Your task to perform on an android device: uninstall "Booking.com: Hotels and more" Image 0: 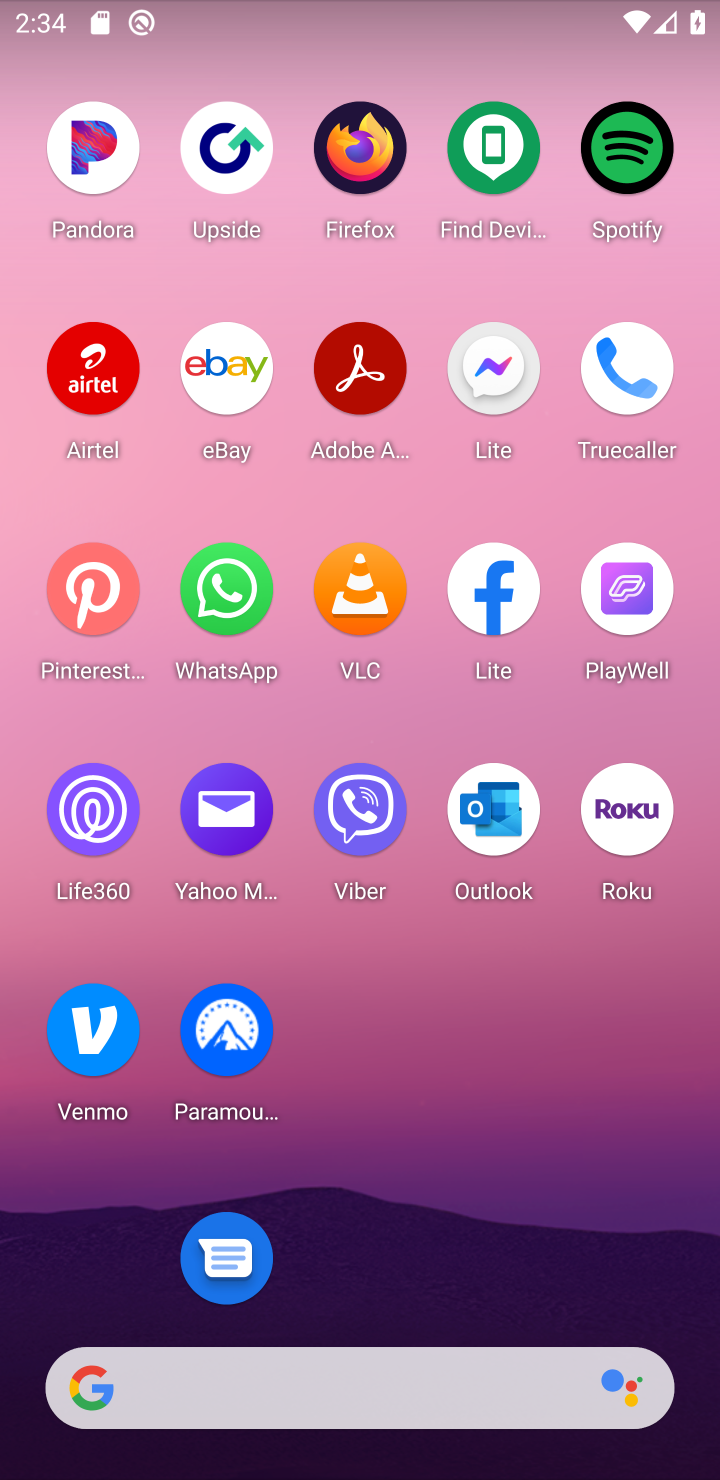
Step 0: press home button
Your task to perform on an android device: uninstall "Booking.com: Hotels and more" Image 1: 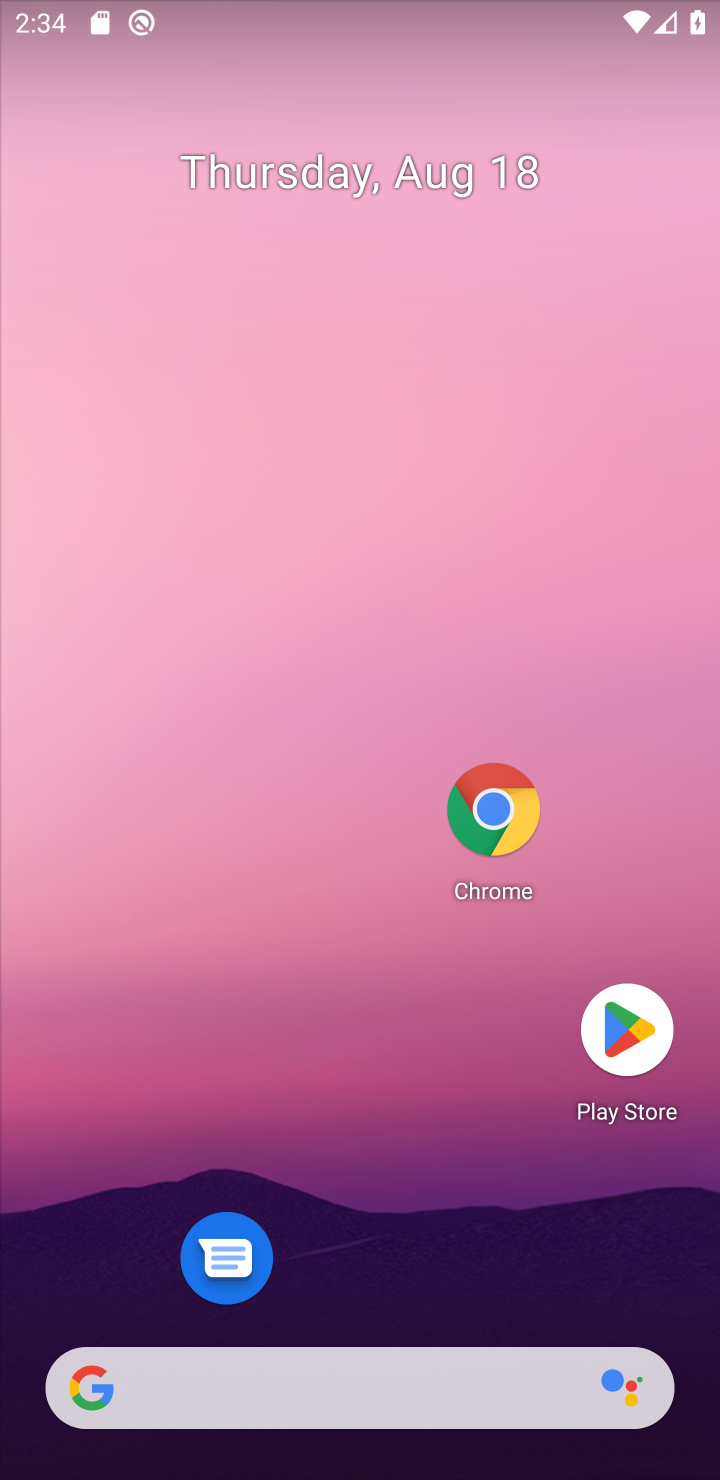
Step 1: click (630, 1022)
Your task to perform on an android device: uninstall "Booking.com: Hotels and more" Image 2: 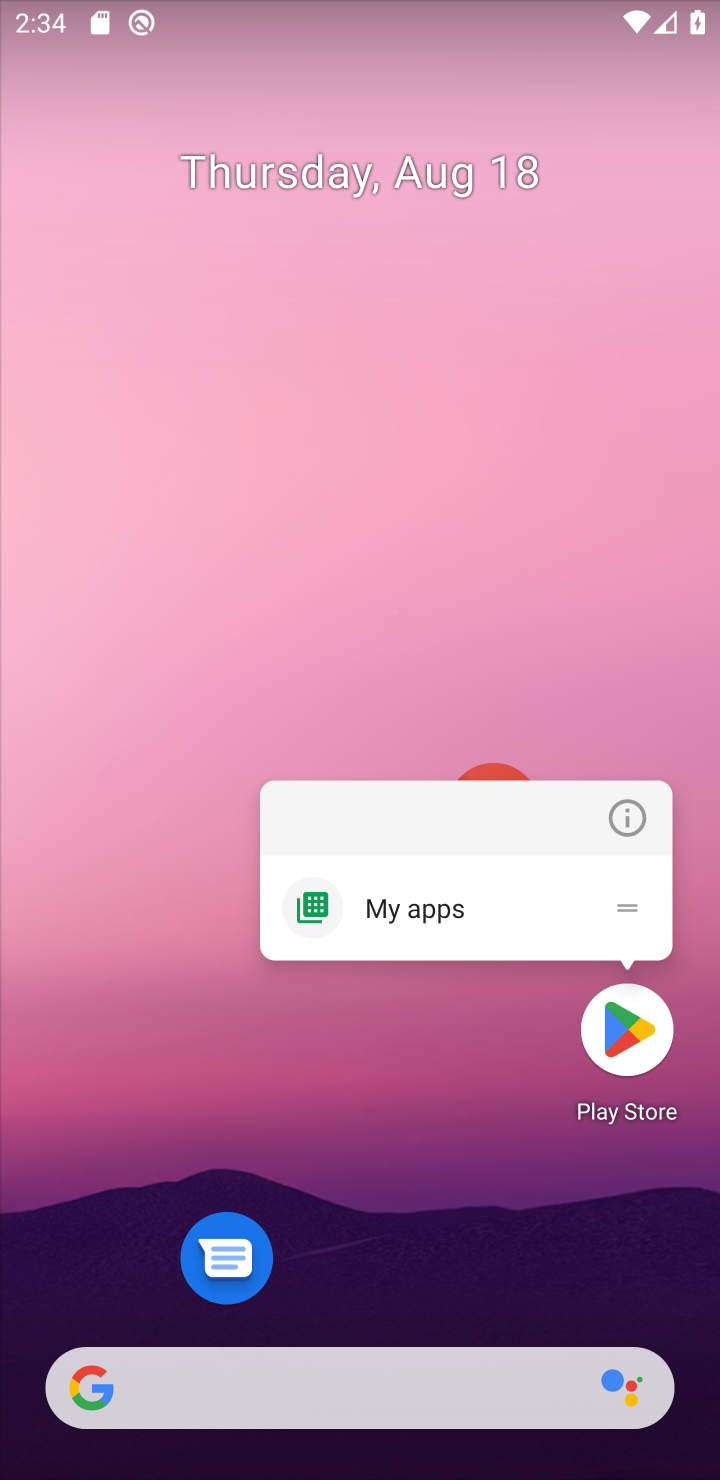
Step 2: click (619, 1019)
Your task to perform on an android device: uninstall "Booking.com: Hotels and more" Image 3: 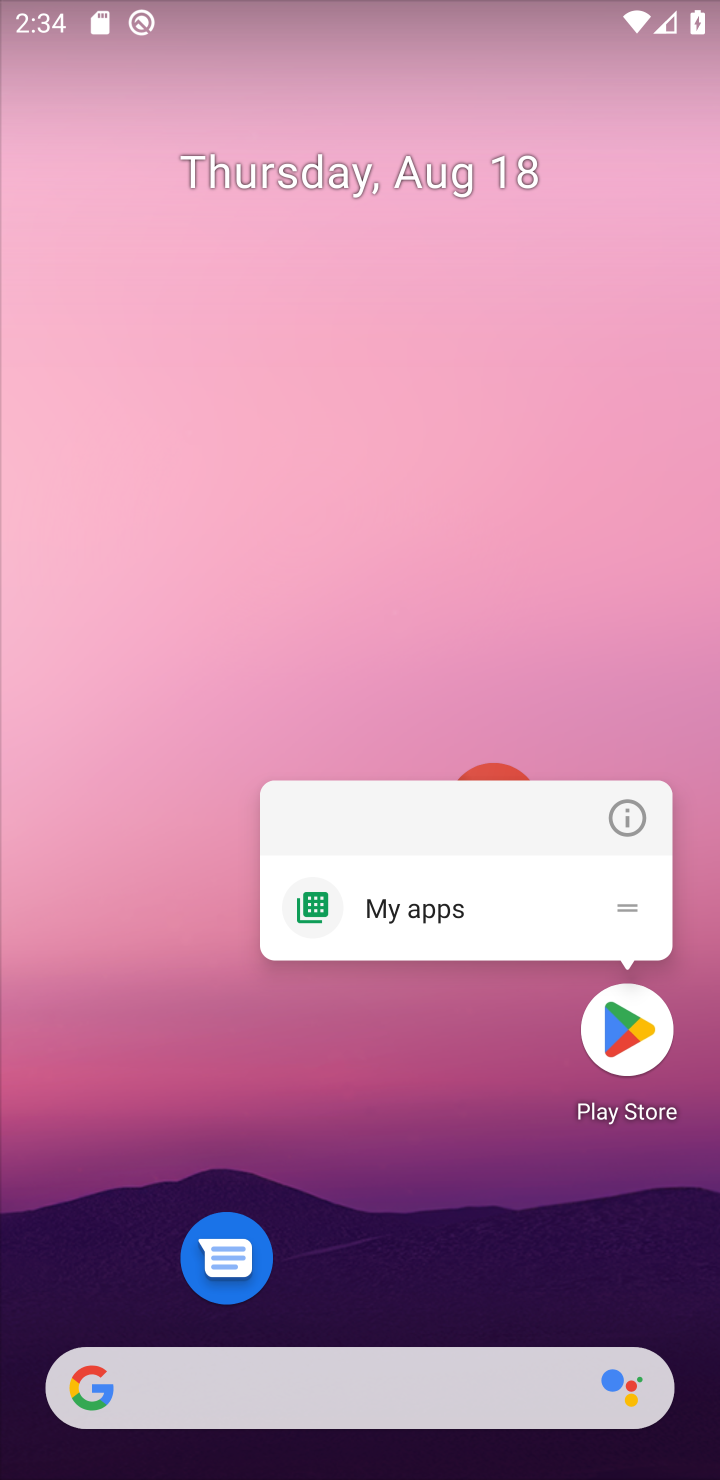
Step 3: click (611, 1048)
Your task to perform on an android device: uninstall "Booking.com: Hotels and more" Image 4: 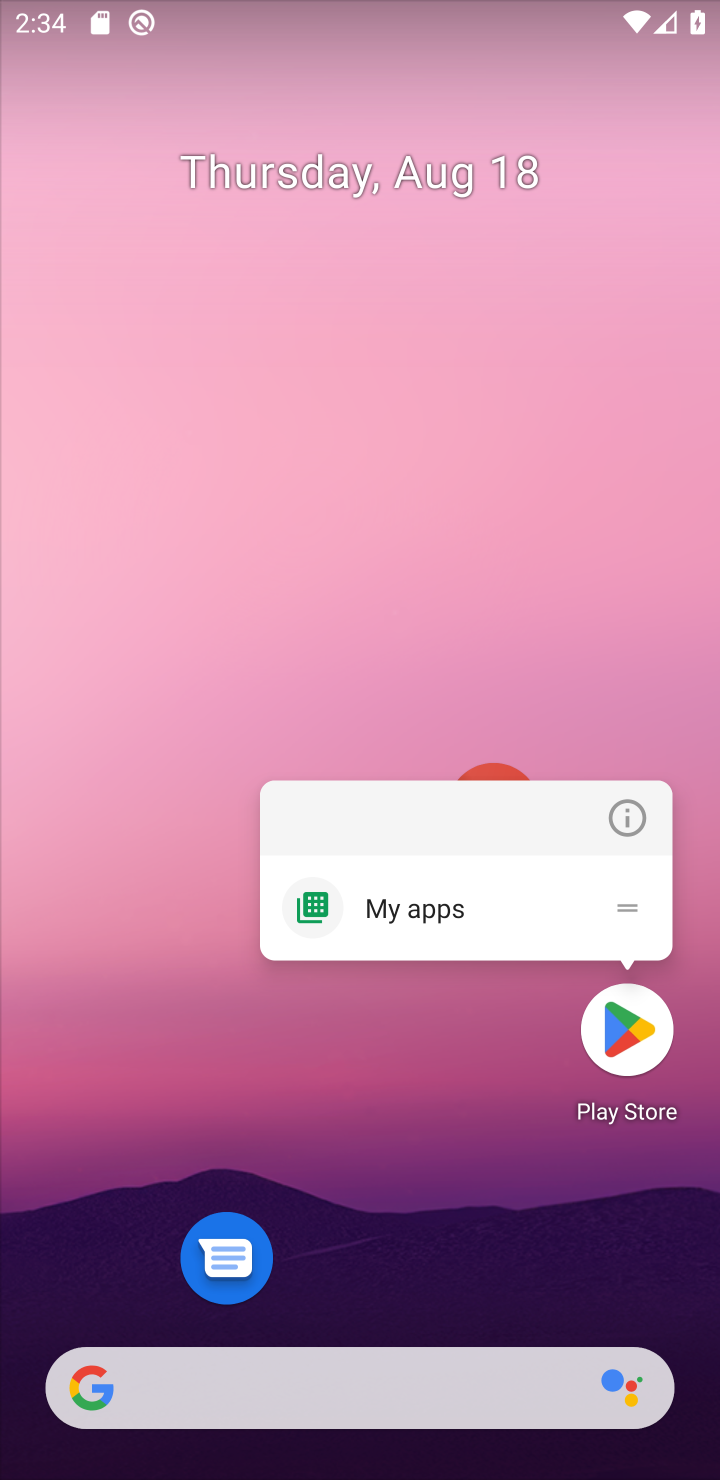
Step 4: click (608, 1066)
Your task to perform on an android device: uninstall "Booking.com: Hotels and more" Image 5: 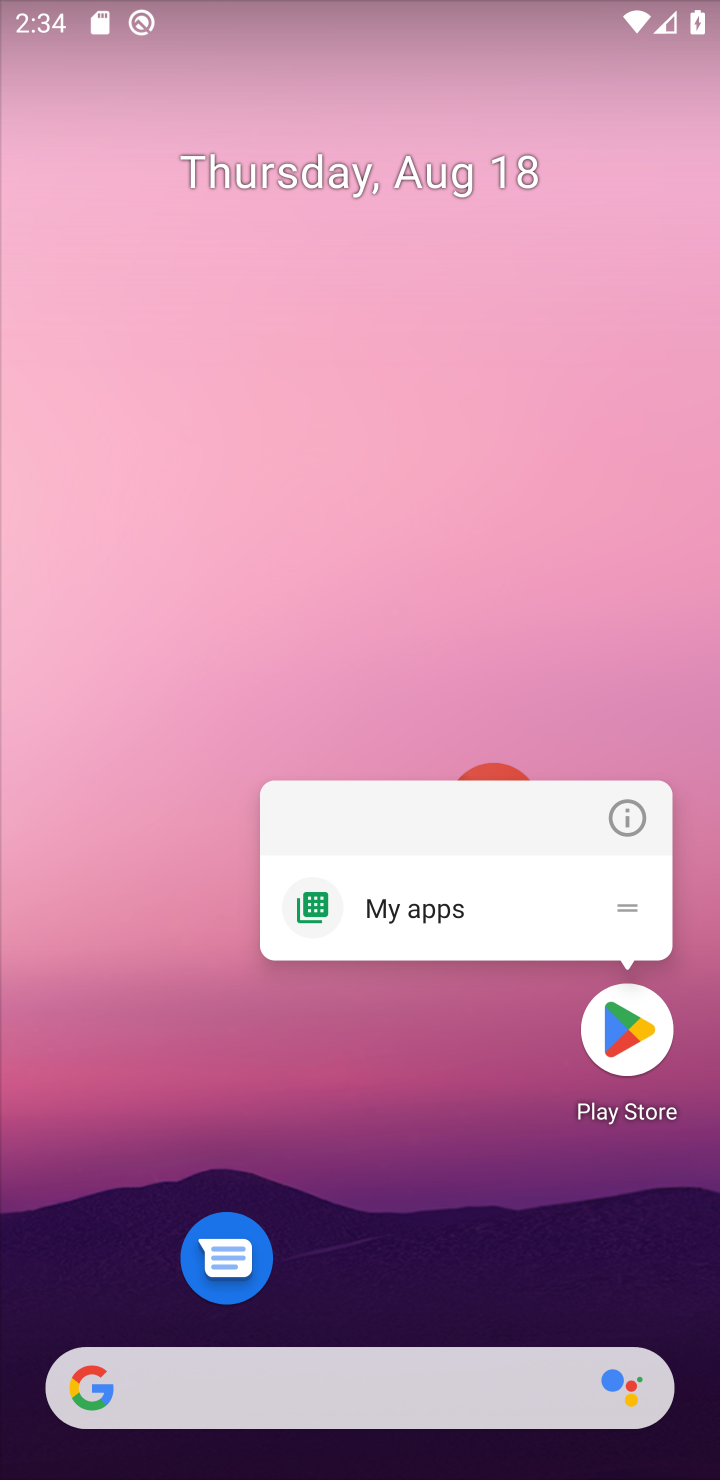
Step 5: click (627, 1036)
Your task to perform on an android device: uninstall "Booking.com: Hotels and more" Image 6: 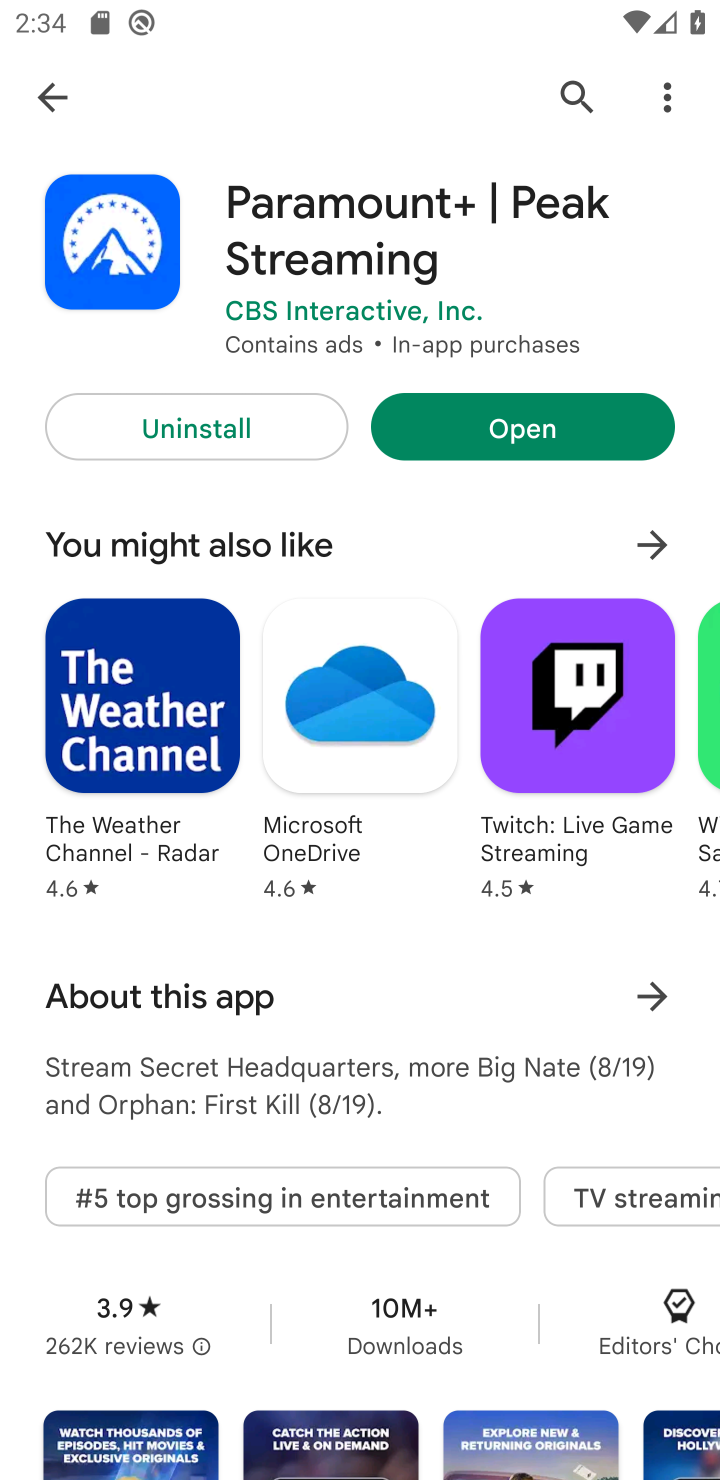
Step 6: click (38, 98)
Your task to perform on an android device: uninstall "Booking.com: Hotels and more" Image 7: 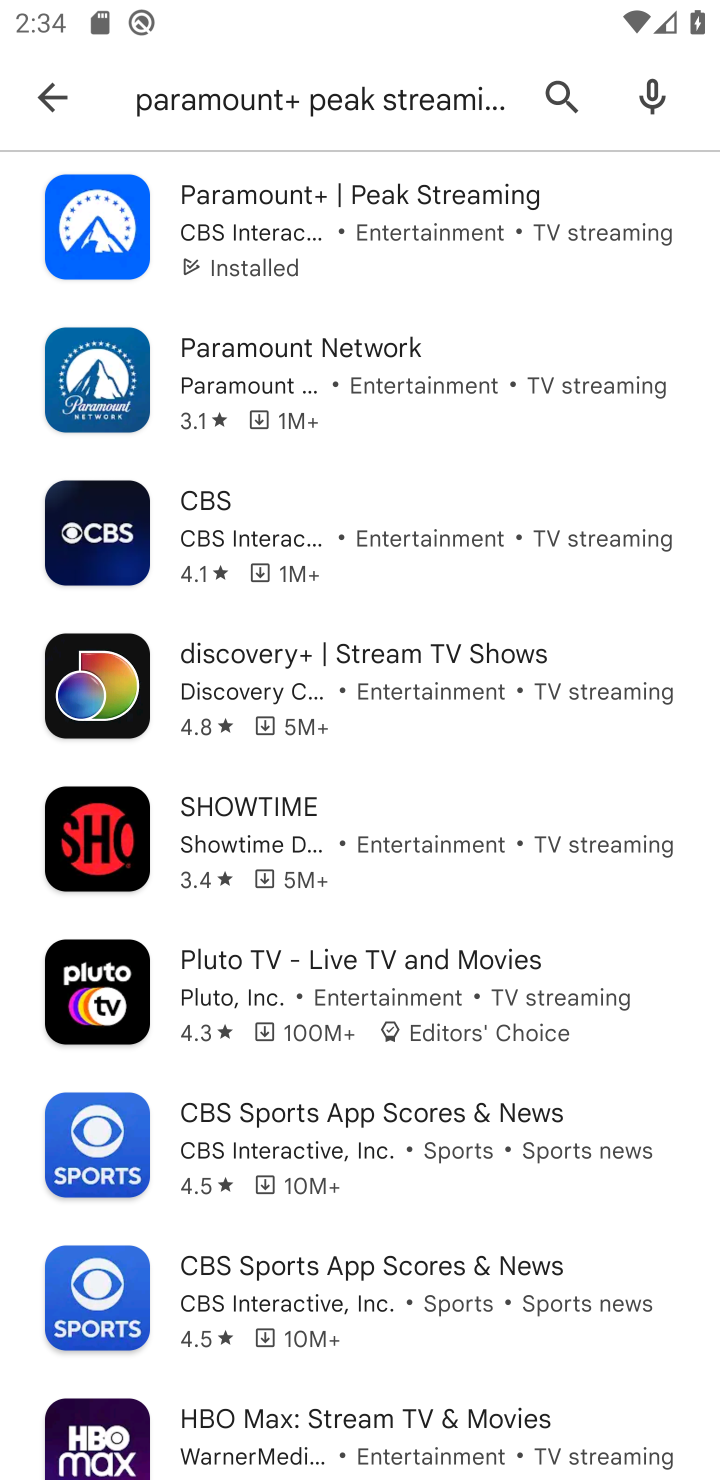
Step 7: click (84, 94)
Your task to perform on an android device: uninstall "Booking.com: Hotels and more" Image 8: 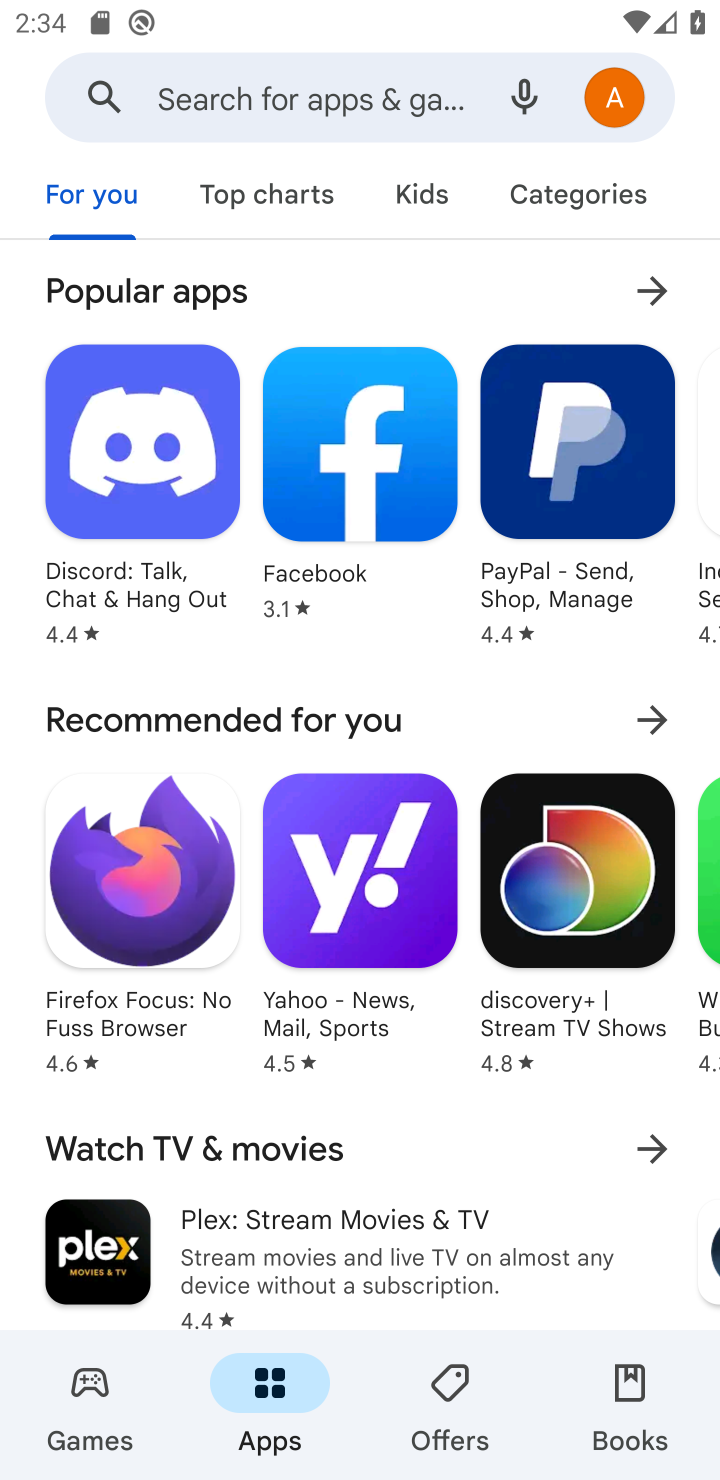
Step 8: click (239, 86)
Your task to perform on an android device: uninstall "Booking.com: Hotels and more" Image 9: 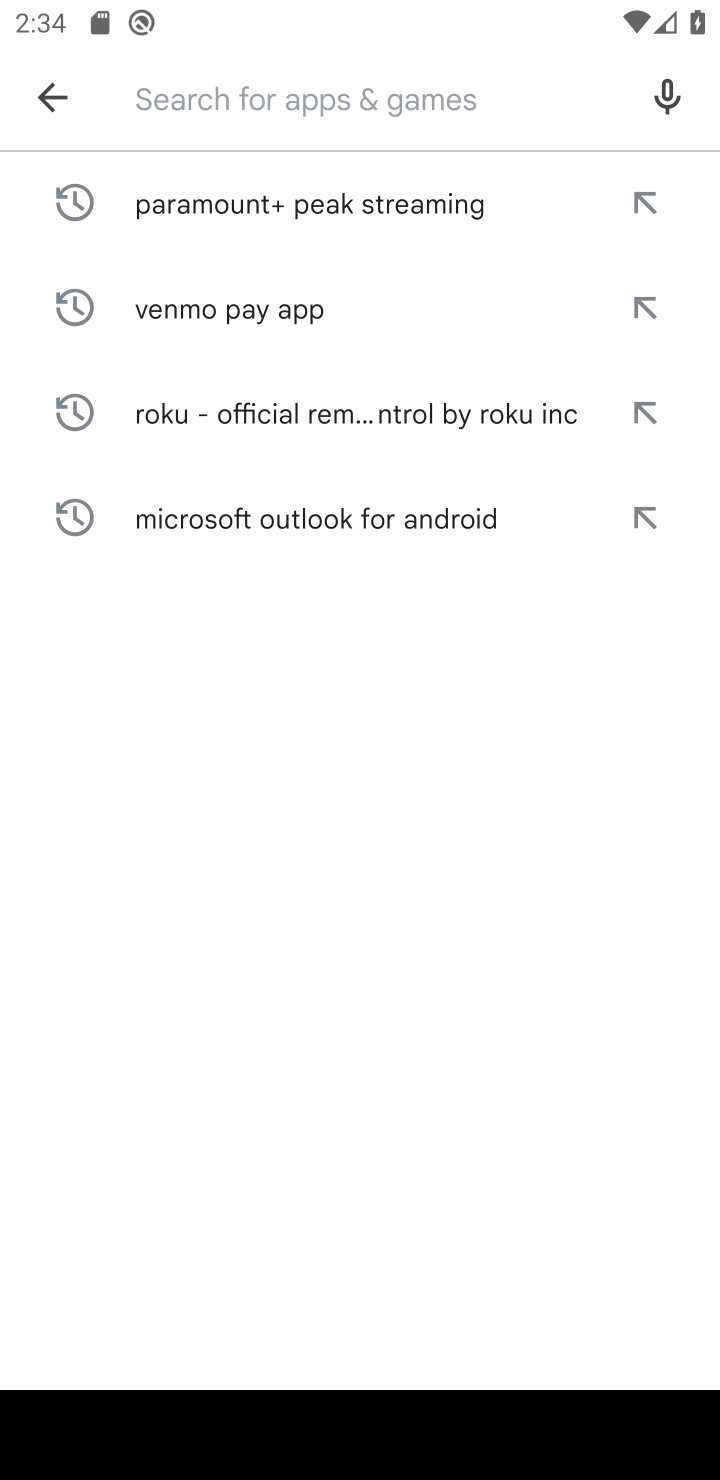
Step 9: type "Booking.com: Hotels and mor e "
Your task to perform on an android device: uninstall "Booking.com: Hotels and more" Image 10: 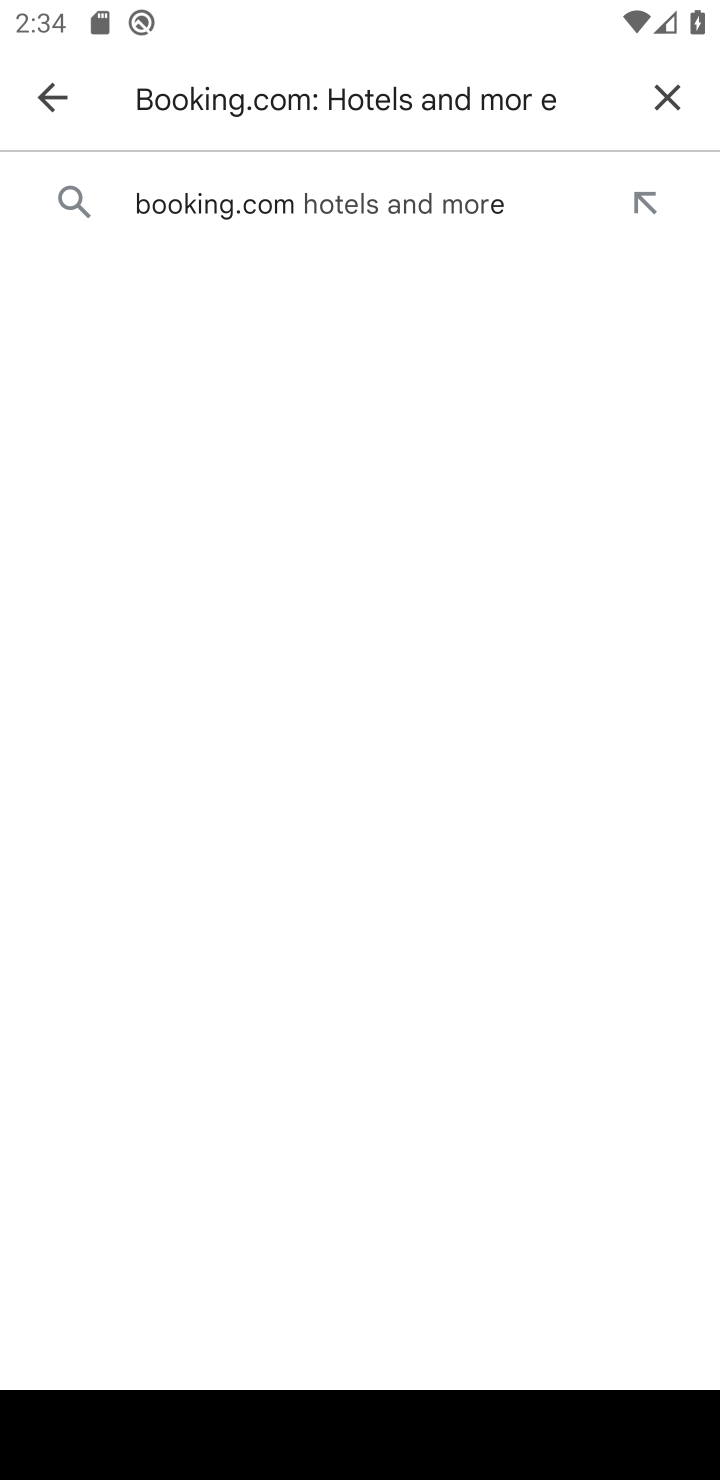
Step 10: click (284, 213)
Your task to perform on an android device: uninstall "Booking.com: Hotels and more" Image 11: 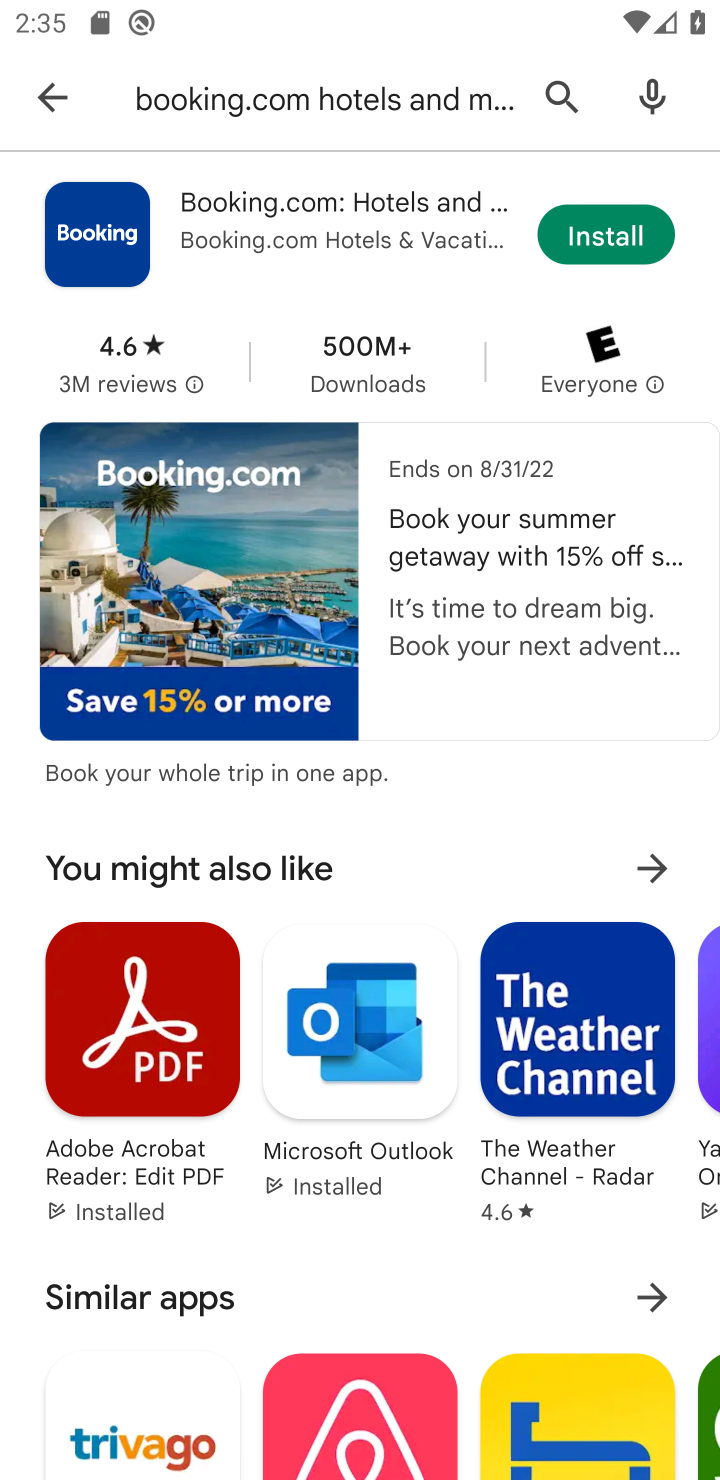
Step 11: click (590, 221)
Your task to perform on an android device: uninstall "Booking.com: Hotels and more" Image 12: 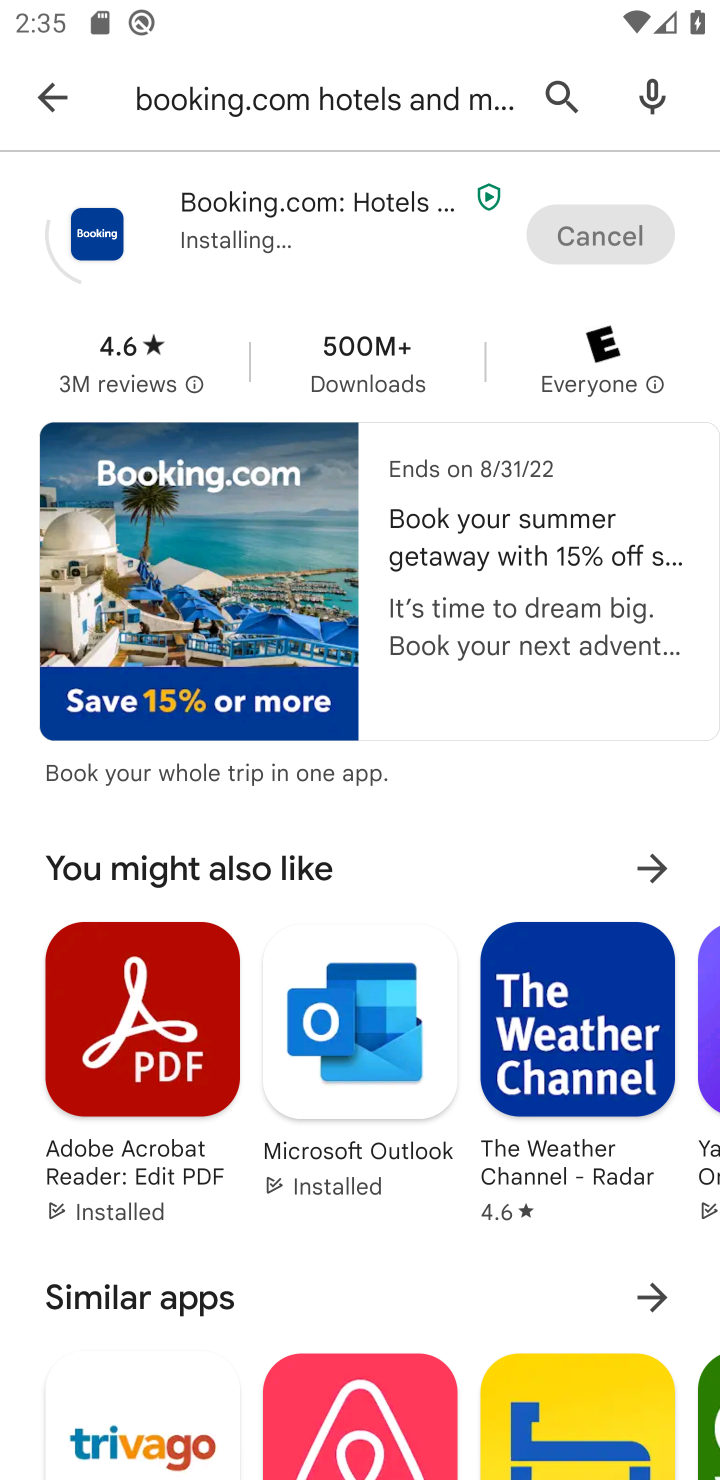
Step 12: task complete